Your task to perform on an android device: check android version Image 0: 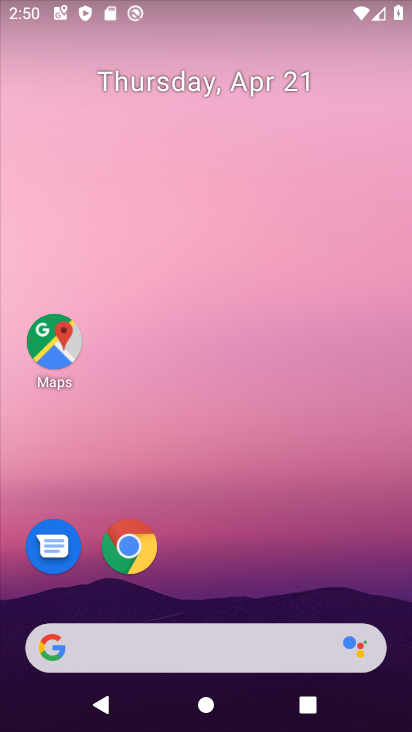
Step 0: drag from (267, 609) to (405, 22)
Your task to perform on an android device: check android version Image 1: 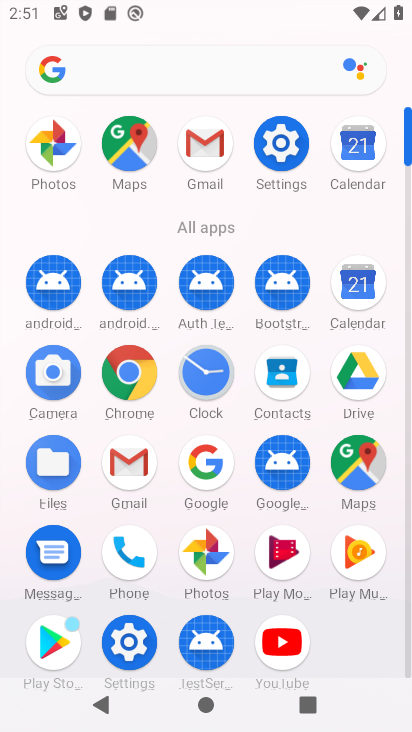
Step 1: click (282, 132)
Your task to perform on an android device: check android version Image 2: 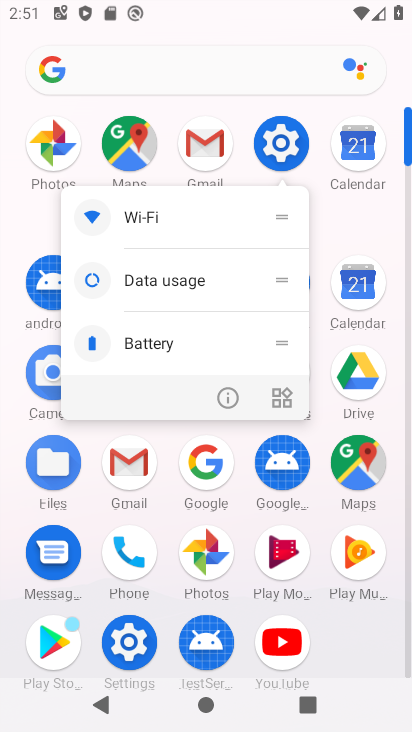
Step 2: click (273, 146)
Your task to perform on an android device: check android version Image 3: 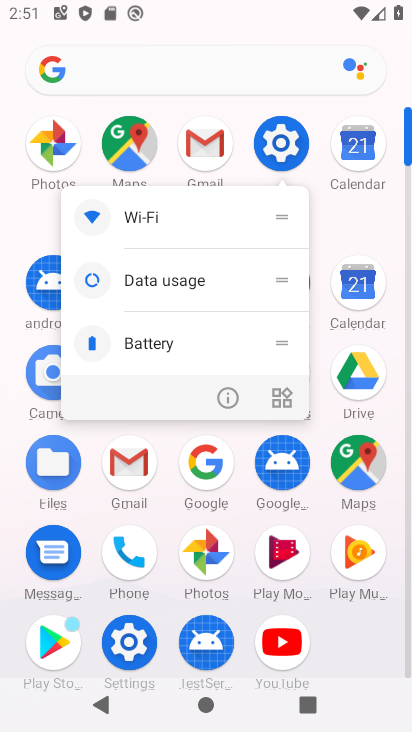
Step 3: click (284, 152)
Your task to perform on an android device: check android version Image 4: 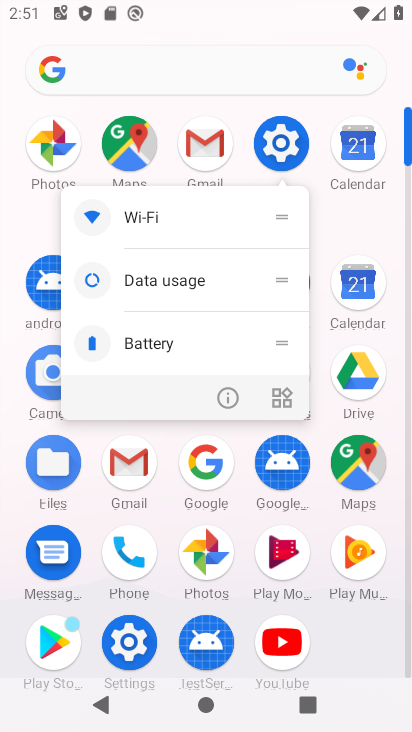
Step 4: click (287, 154)
Your task to perform on an android device: check android version Image 5: 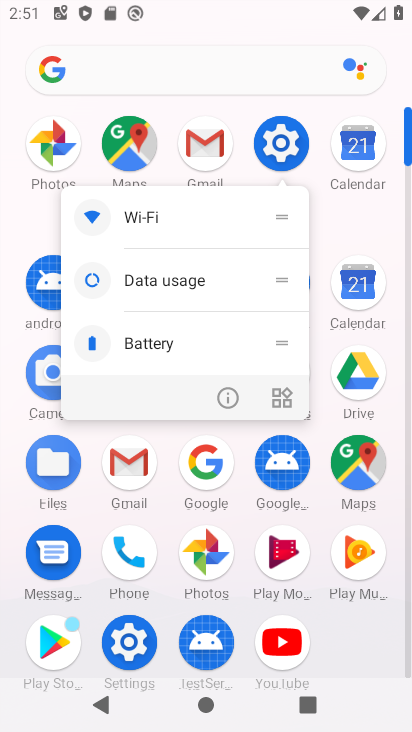
Step 5: click (287, 154)
Your task to perform on an android device: check android version Image 6: 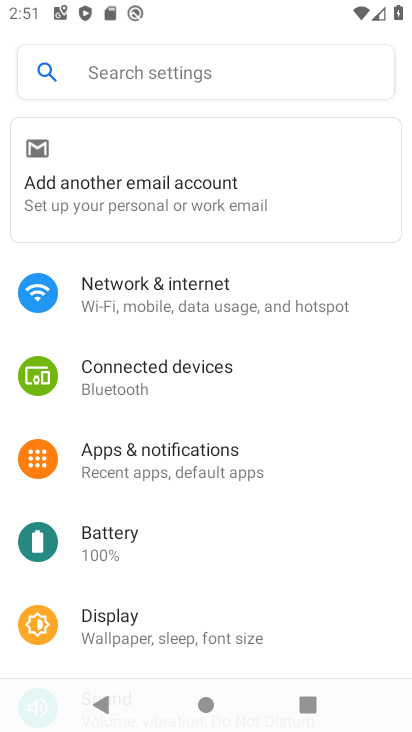
Step 6: drag from (257, 628) to (224, 135)
Your task to perform on an android device: check android version Image 7: 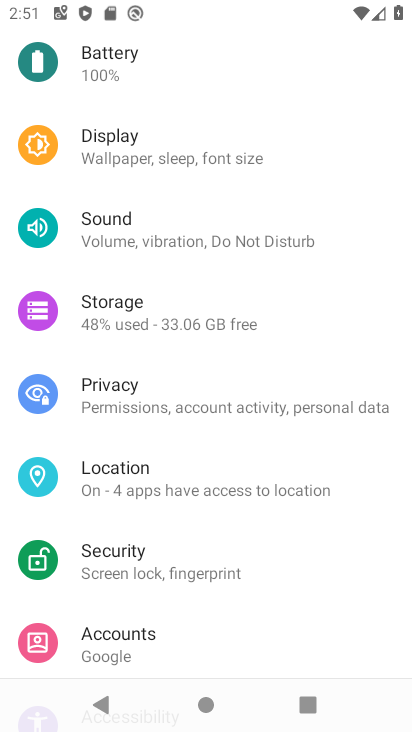
Step 7: drag from (244, 613) to (230, 126)
Your task to perform on an android device: check android version Image 8: 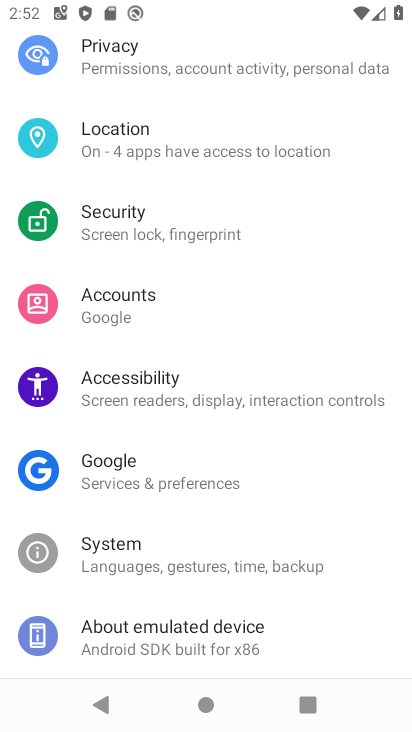
Step 8: drag from (224, 636) to (178, 108)
Your task to perform on an android device: check android version Image 9: 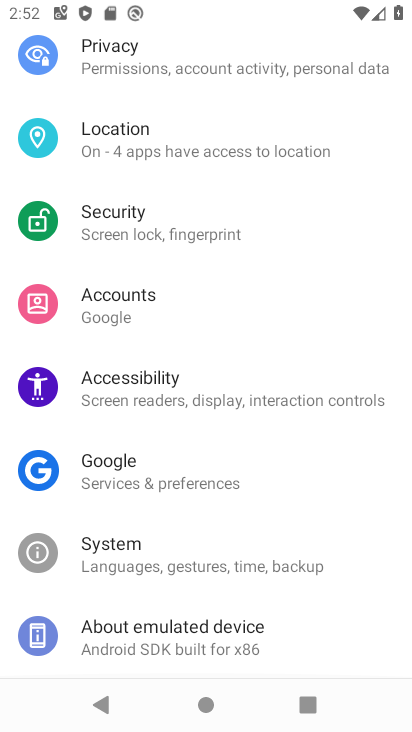
Step 9: click (183, 638)
Your task to perform on an android device: check android version Image 10: 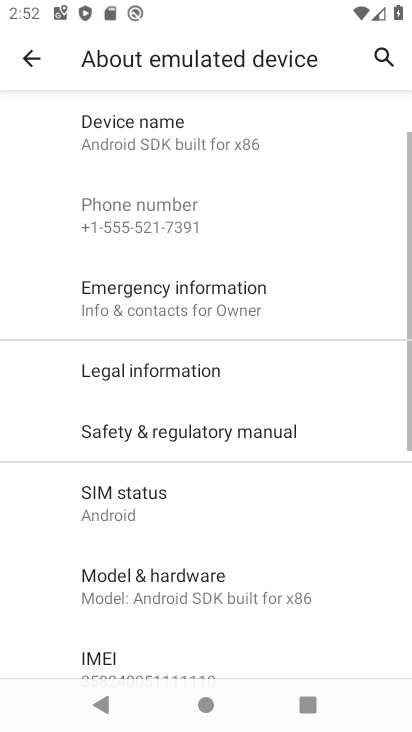
Step 10: task complete